Your task to perform on an android device: Open settings on Google Maps Image 0: 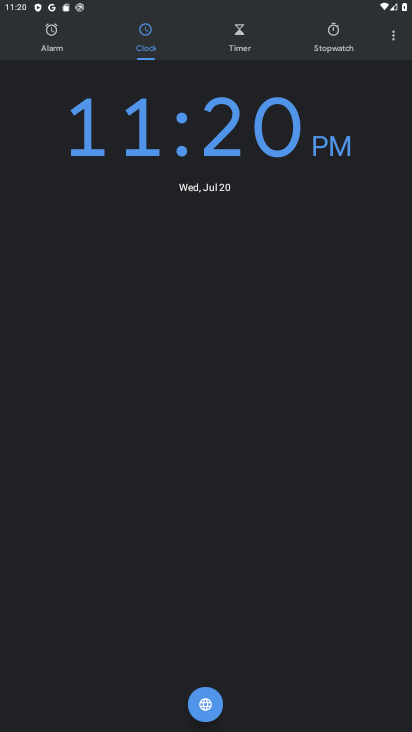
Step 0: press home button
Your task to perform on an android device: Open settings on Google Maps Image 1: 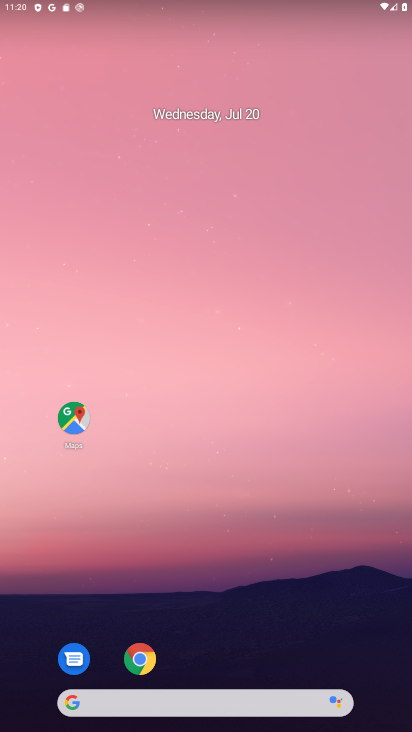
Step 1: click (74, 417)
Your task to perform on an android device: Open settings on Google Maps Image 2: 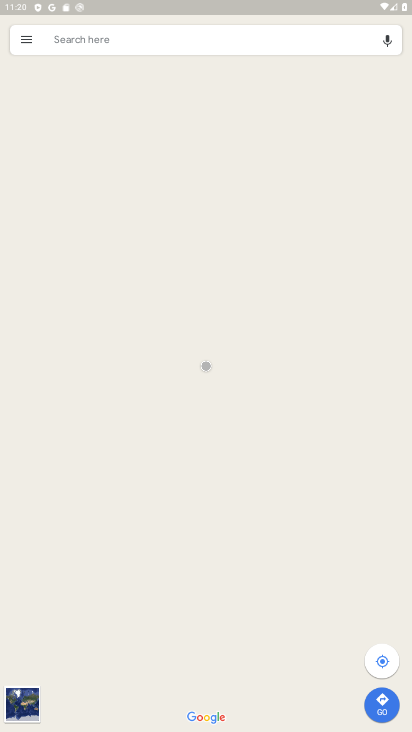
Step 2: click (21, 36)
Your task to perform on an android device: Open settings on Google Maps Image 3: 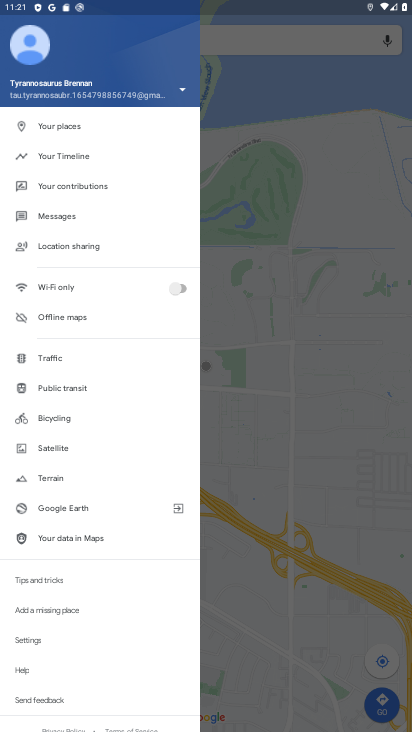
Step 3: click (34, 642)
Your task to perform on an android device: Open settings on Google Maps Image 4: 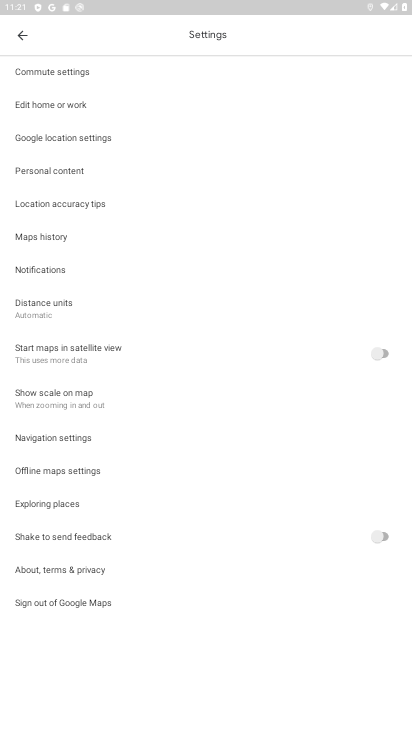
Step 4: task complete